Your task to perform on an android device: open wifi settings Image 0: 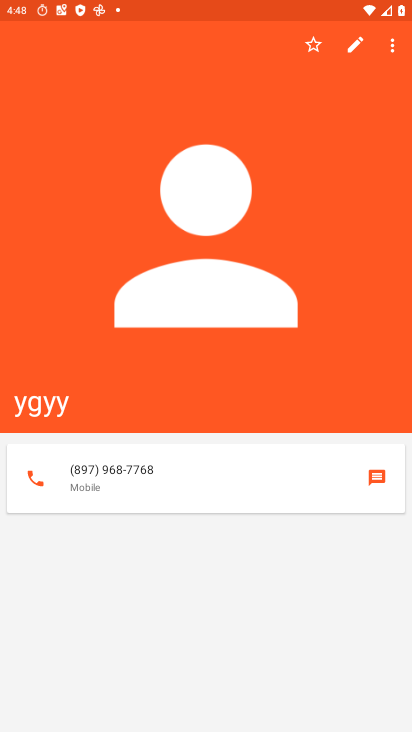
Step 0: press home button
Your task to perform on an android device: open wifi settings Image 1: 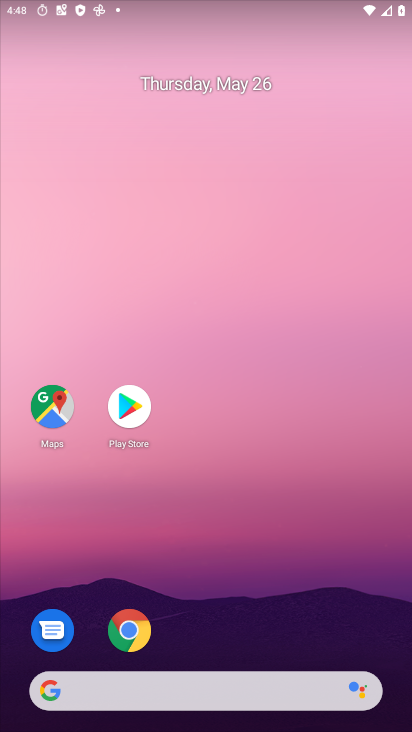
Step 1: drag from (219, 641) to (289, 112)
Your task to perform on an android device: open wifi settings Image 2: 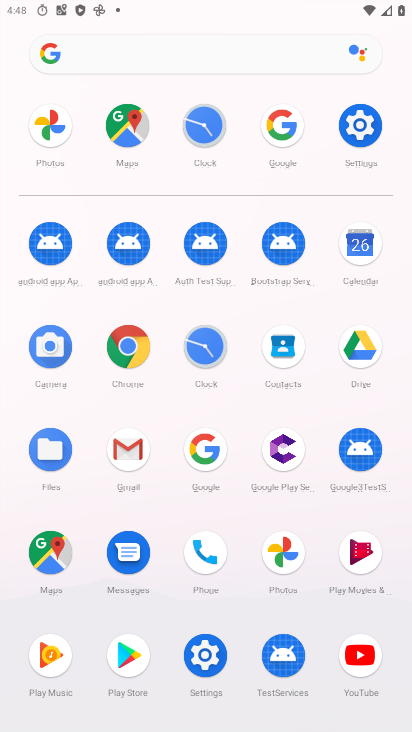
Step 2: click (367, 122)
Your task to perform on an android device: open wifi settings Image 3: 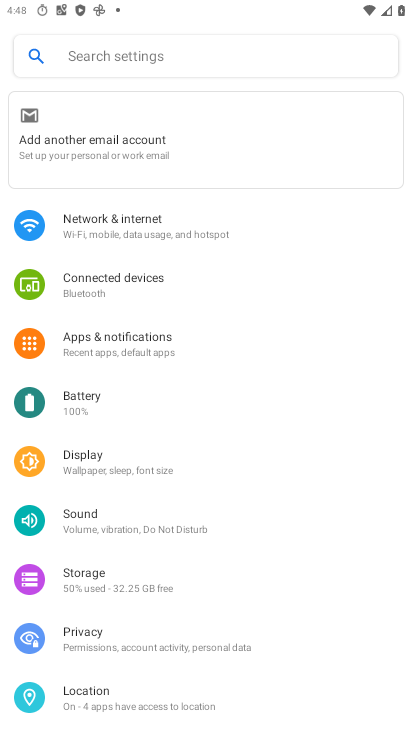
Step 3: click (128, 220)
Your task to perform on an android device: open wifi settings Image 4: 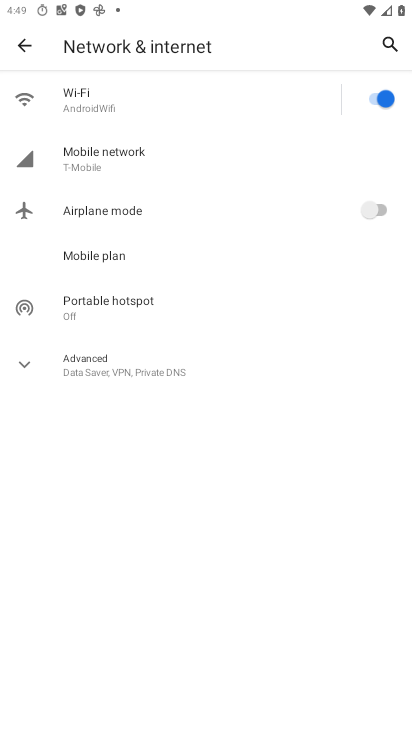
Step 4: click (141, 91)
Your task to perform on an android device: open wifi settings Image 5: 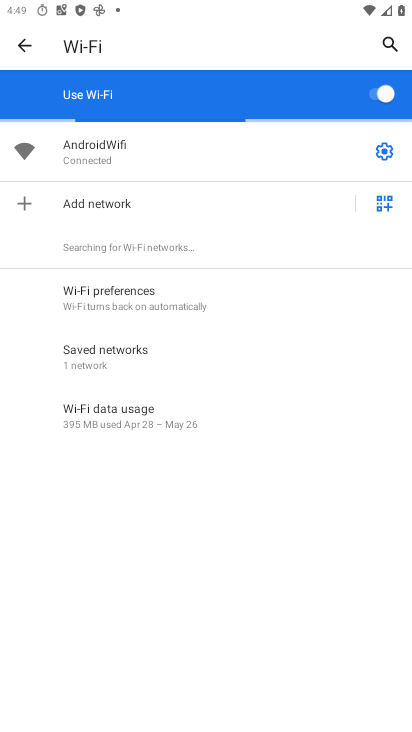
Step 5: task complete